Your task to perform on an android device: turn off notifications in google photos Image 0: 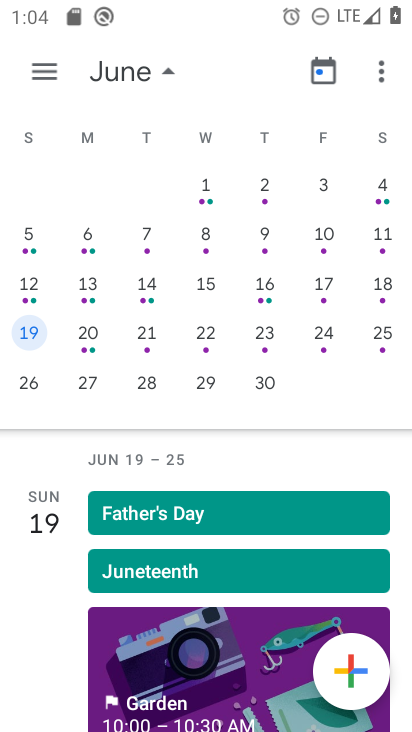
Step 0: press home button
Your task to perform on an android device: turn off notifications in google photos Image 1: 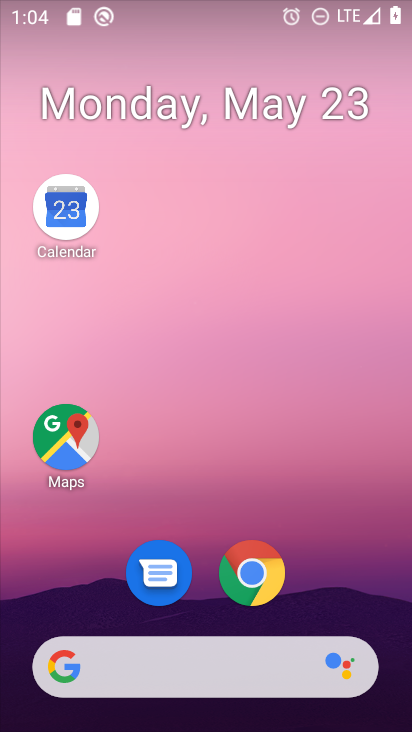
Step 1: drag from (321, 573) to (350, 9)
Your task to perform on an android device: turn off notifications in google photos Image 2: 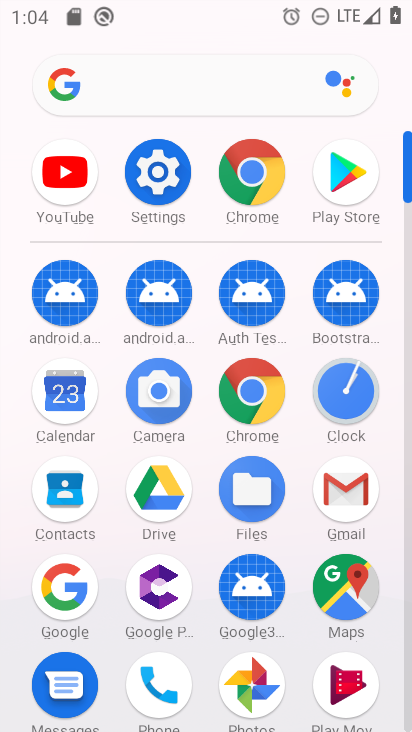
Step 2: click (250, 676)
Your task to perform on an android device: turn off notifications in google photos Image 3: 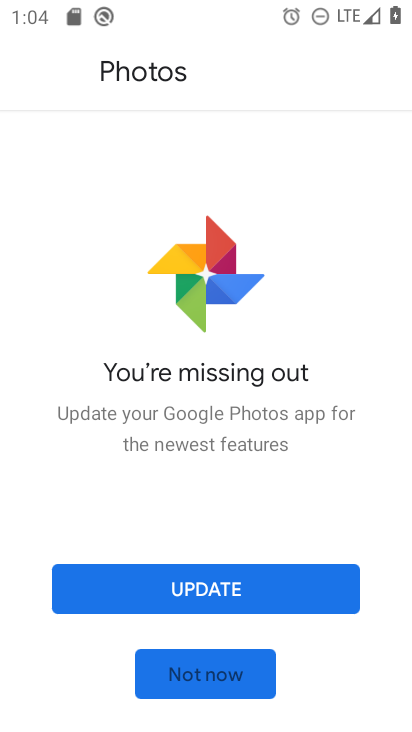
Step 3: click (204, 584)
Your task to perform on an android device: turn off notifications in google photos Image 4: 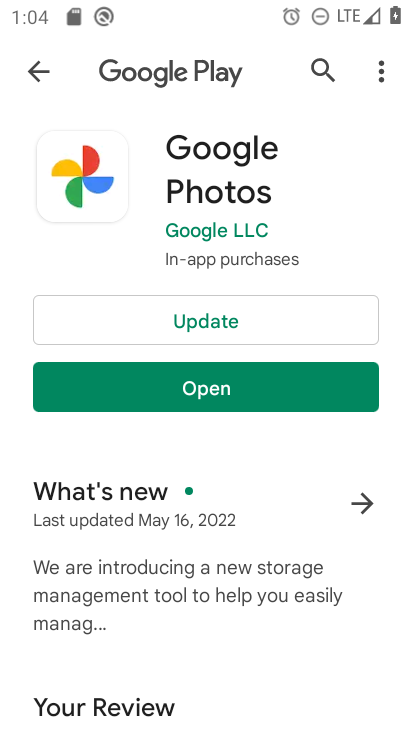
Step 4: click (232, 312)
Your task to perform on an android device: turn off notifications in google photos Image 5: 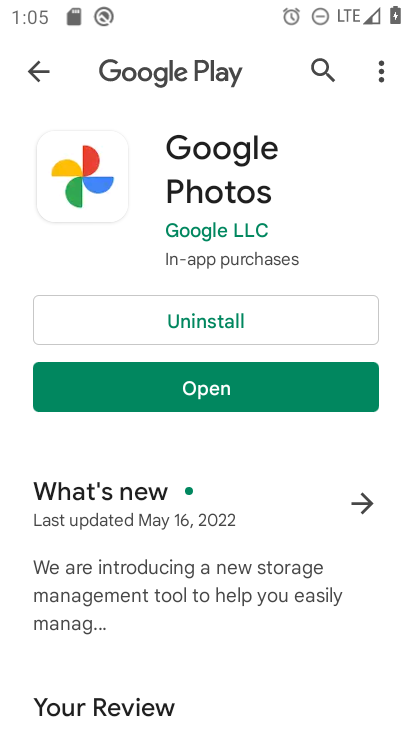
Step 5: click (208, 386)
Your task to perform on an android device: turn off notifications in google photos Image 6: 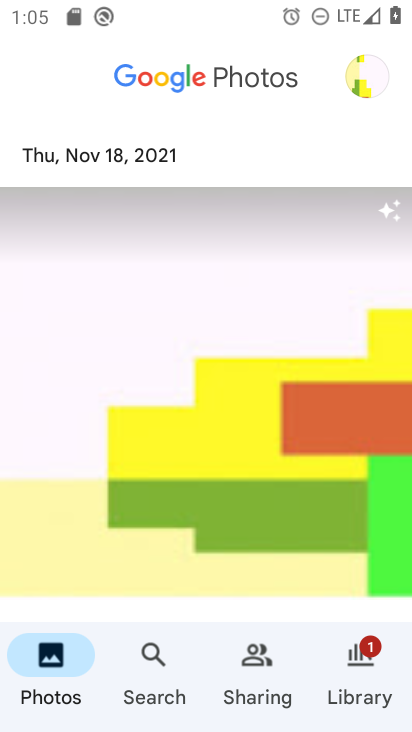
Step 6: click (365, 87)
Your task to perform on an android device: turn off notifications in google photos Image 7: 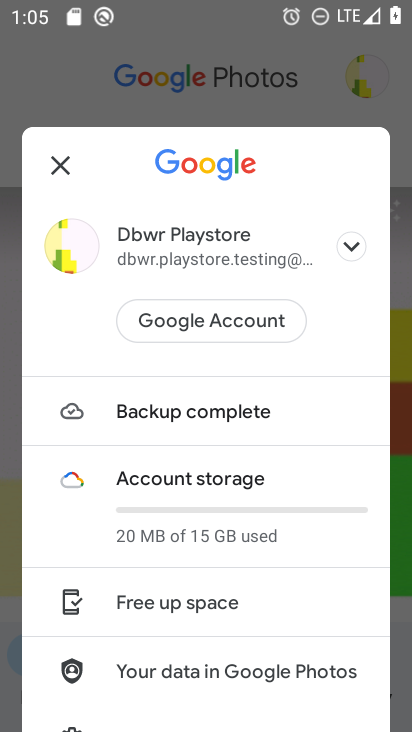
Step 7: drag from (176, 562) to (185, 336)
Your task to perform on an android device: turn off notifications in google photos Image 8: 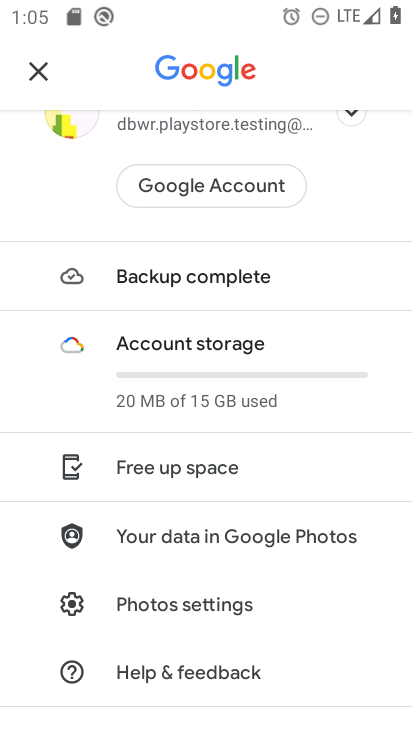
Step 8: click (142, 604)
Your task to perform on an android device: turn off notifications in google photos Image 9: 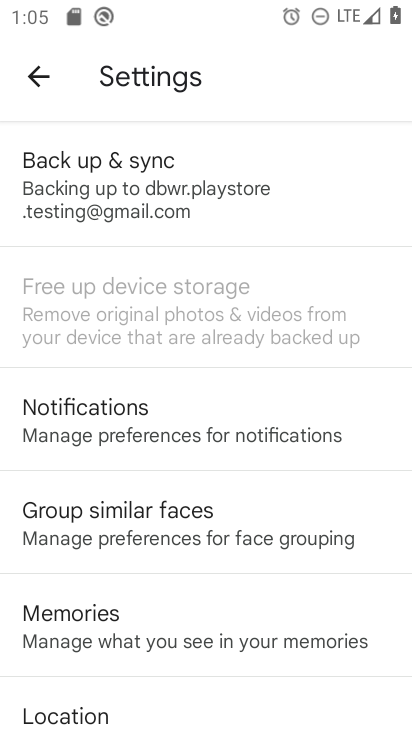
Step 9: click (142, 430)
Your task to perform on an android device: turn off notifications in google photos Image 10: 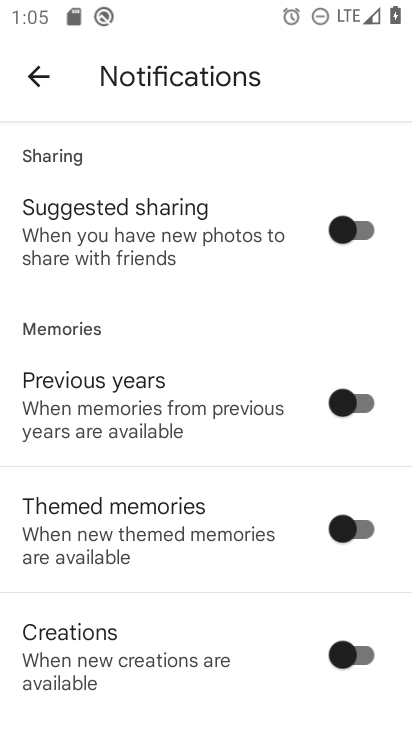
Step 10: drag from (190, 627) to (237, 85)
Your task to perform on an android device: turn off notifications in google photos Image 11: 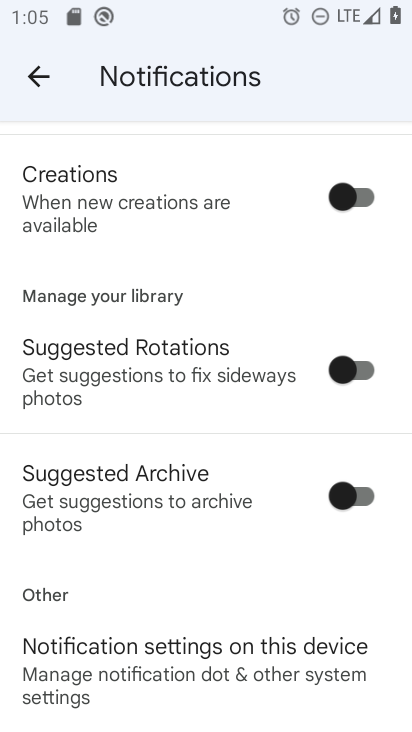
Step 11: drag from (166, 639) to (169, 63)
Your task to perform on an android device: turn off notifications in google photos Image 12: 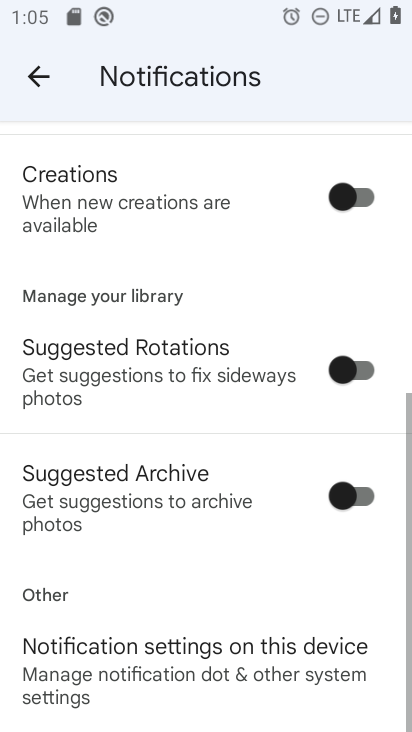
Step 12: click (109, 645)
Your task to perform on an android device: turn off notifications in google photos Image 13: 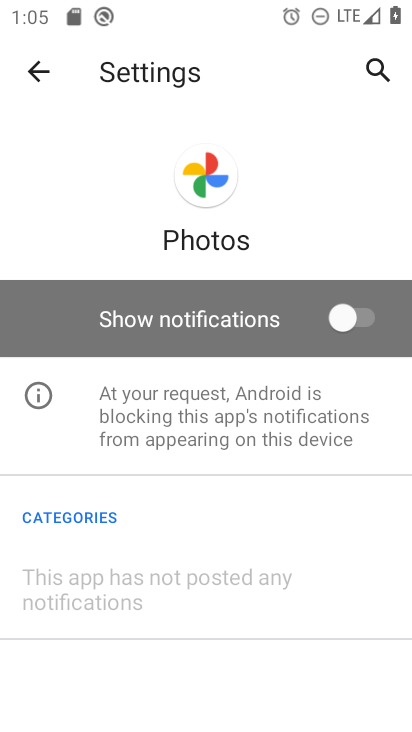
Step 13: task complete